Your task to perform on an android device: Go to accessibility settings Image 0: 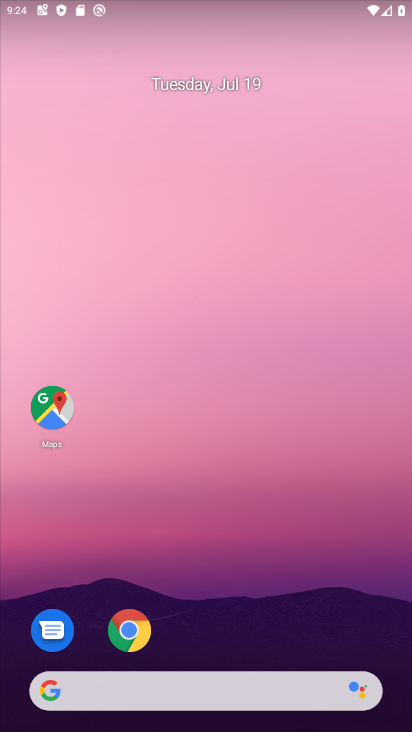
Step 0: drag from (200, 673) to (162, 18)
Your task to perform on an android device: Go to accessibility settings Image 1: 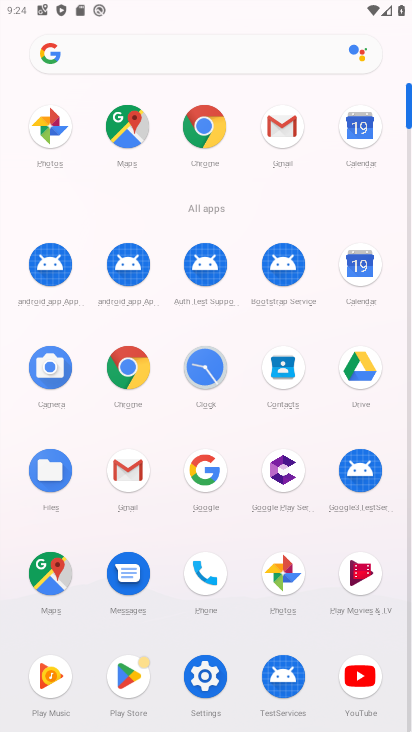
Step 1: click (217, 659)
Your task to perform on an android device: Go to accessibility settings Image 2: 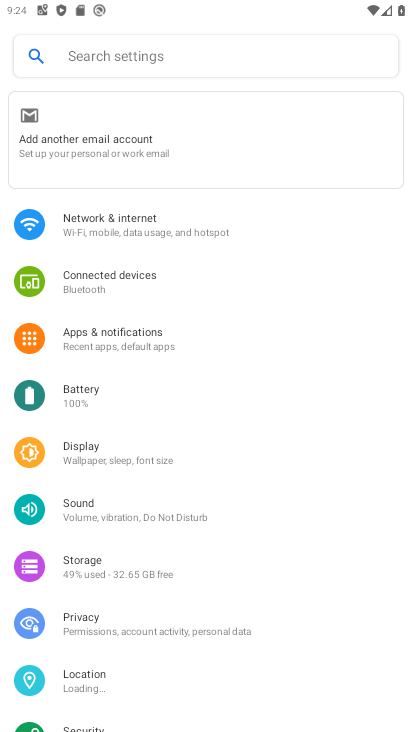
Step 2: drag from (208, 634) to (179, 142)
Your task to perform on an android device: Go to accessibility settings Image 3: 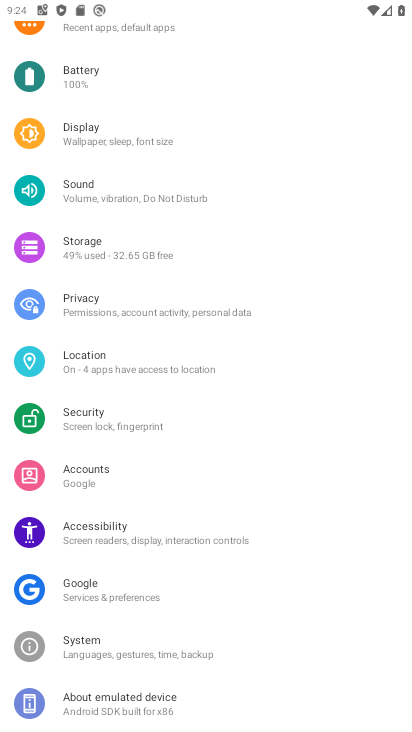
Step 3: click (87, 540)
Your task to perform on an android device: Go to accessibility settings Image 4: 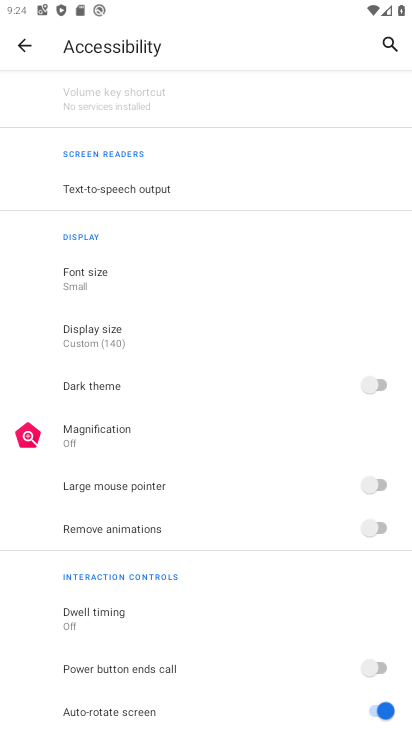
Step 4: task complete